Your task to perform on an android device: Open the phone app and click the voicemail tab. Image 0: 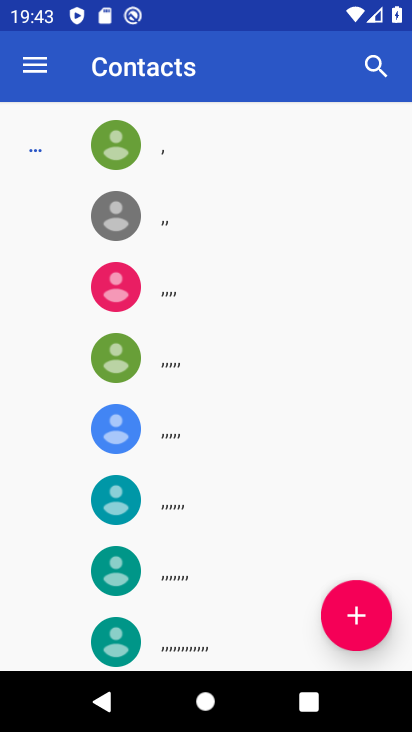
Step 0: press home button
Your task to perform on an android device: Open the phone app and click the voicemail tab. Image 1: 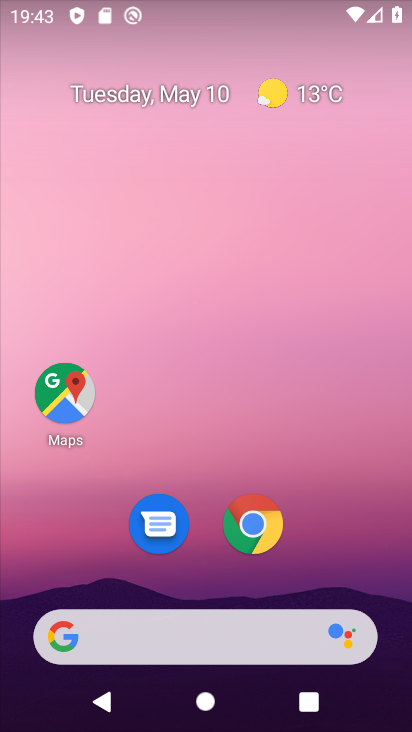
Step 1: drag from (324, 548) to (330, 44)
Your task to perform on an android device: Open the phone app and click the voicemail tab. Image 2: 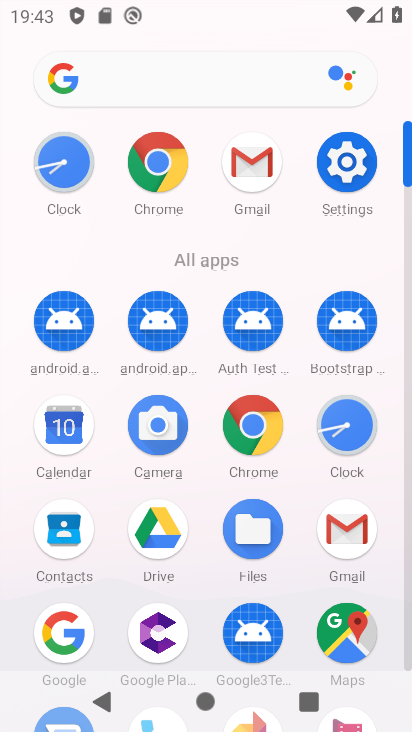
Step 2: drag from (204, 554) to (225, 285)
Your task to perform on an android device: Open the phone app and click the voicemail tab. Image 3: 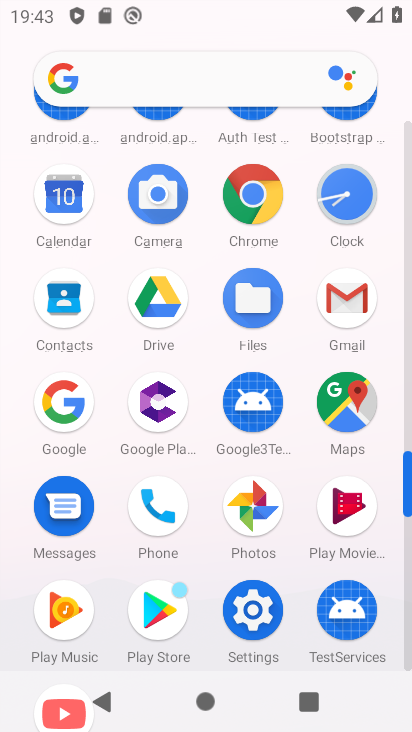
Step 3: click (157, 504)
Your task to perform on an android device: Open the phone app and click the voicemail tab. Image 4: 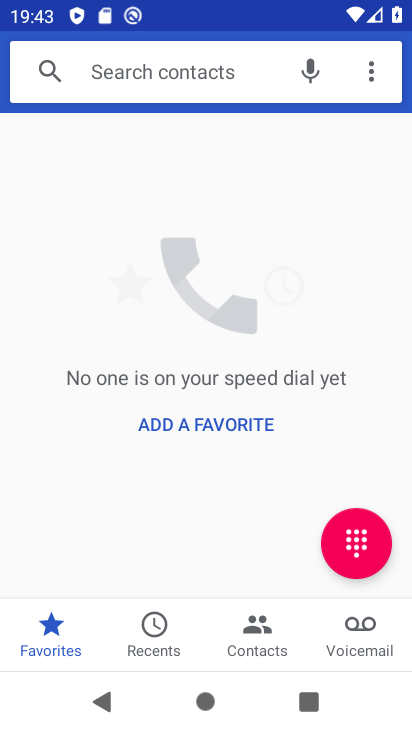
Step 4: click (363, 625)
Your task to perform on an android device: Open the phone app and click the voicemail tab. Image 5: 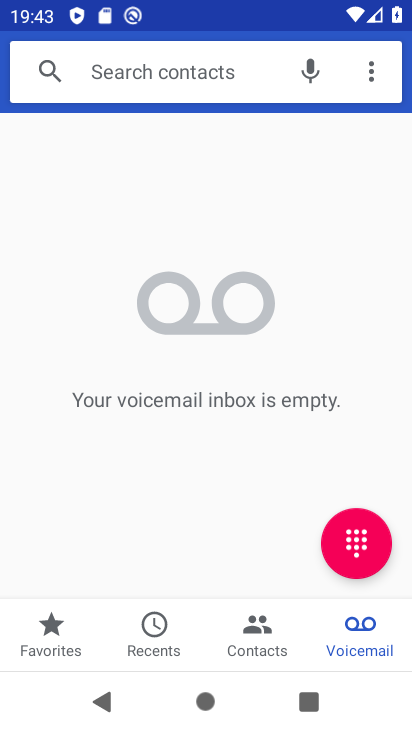
Step 5: task complete